Your task to perform on an android device: change notification settings in the gmail app Image 0: 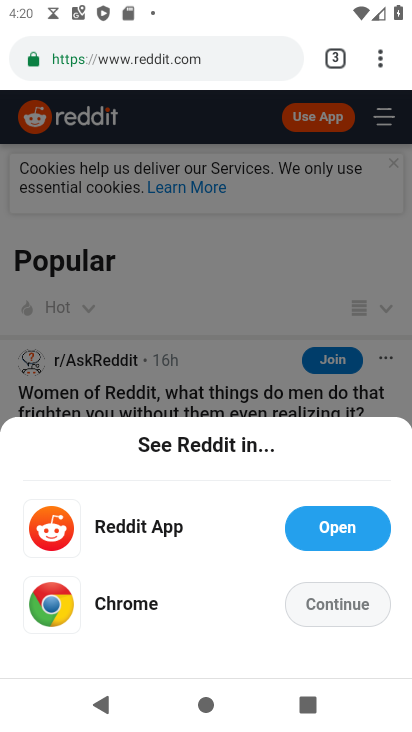
Step 0: press home button
Your task to perform on an android device: change notification settings in the gmail app Image 1: 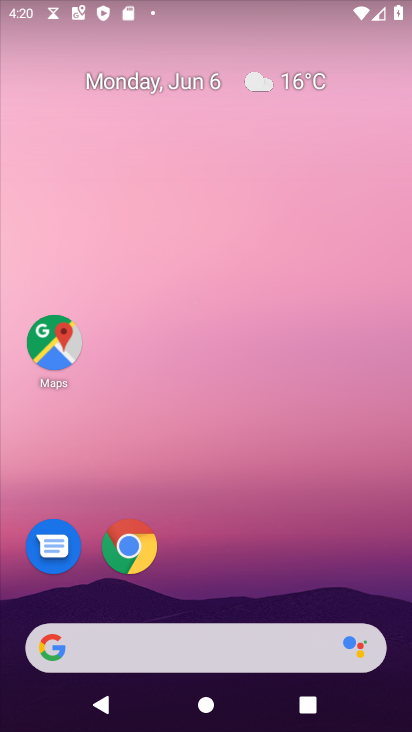
Step 1: drag from (300, 536) to (351, 106)
Your task to perform on an android device: change notification settings in the gmail app Image 2: 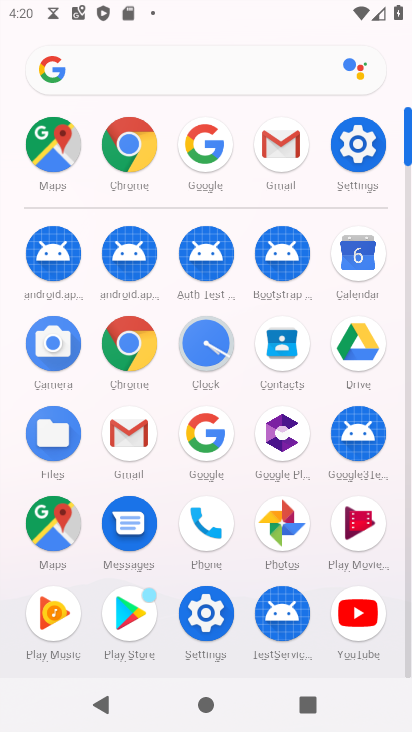
Step 2: click (298, 137)
Your task to perform on an android device: change notification settings in the gmail app Image 3: 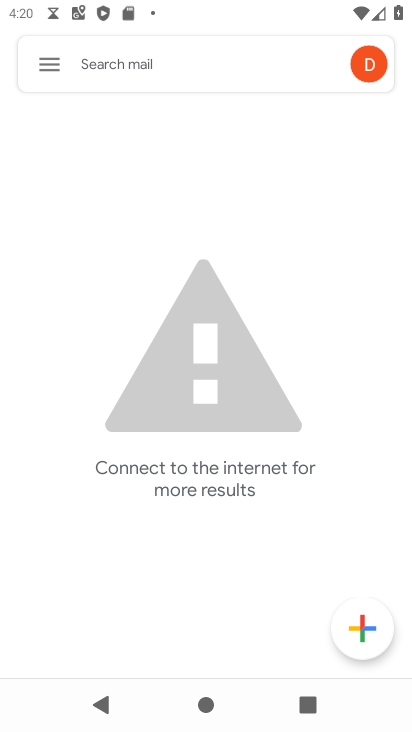
Step 3: click (53, 61)
Your task to perform on an android device: change notification settings in the gmail app Image 4: 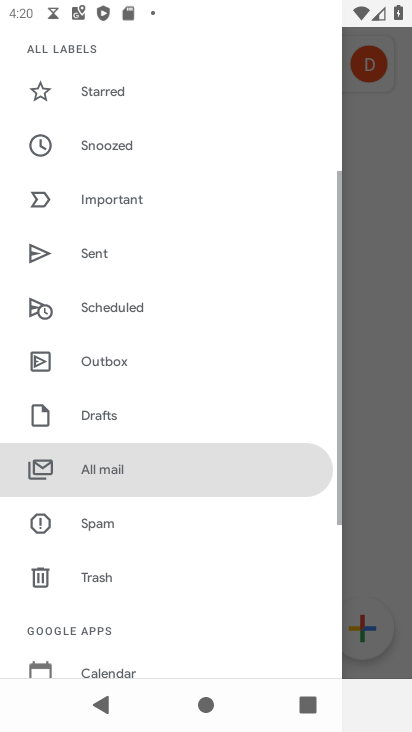
Step 4: drag from (154, 182) to (205, 701)
Your task to perform on an android device: change notification settings in the gmail app Image 5: 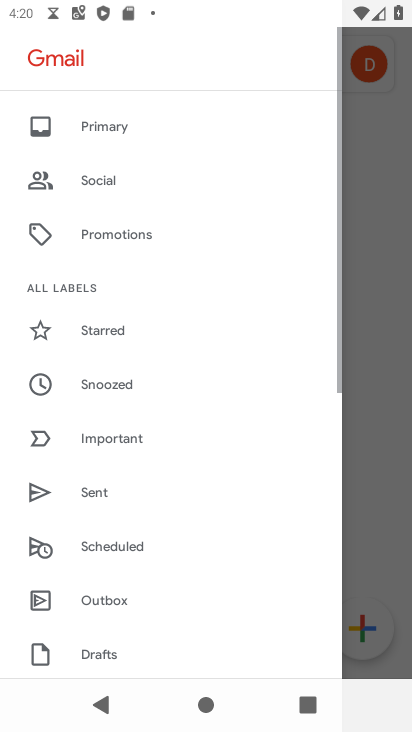
Step 5: drag from (209, 635) to (294, 129)
Your task to perform on an android device: change notification settings in the gmail app Image 6: 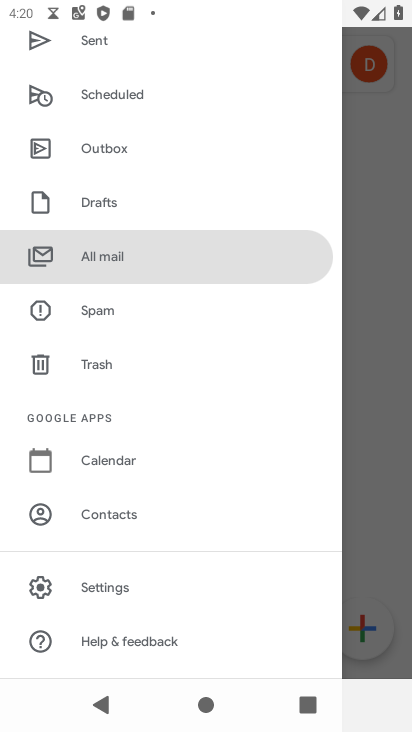
Step 6: click (138, 593)
Your task to perform on an android device: change notification settings in the gmail app Image 7: 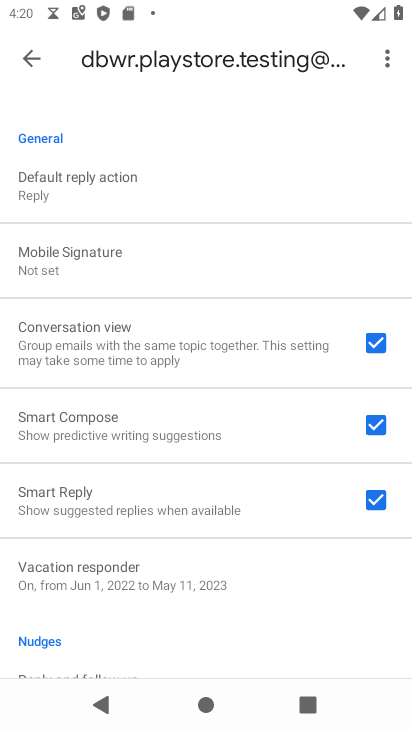
Step 7: drag from (188, 597) to (247, 126)
Your task to perform on an android device: change notification settings in the gmail app Image 8: 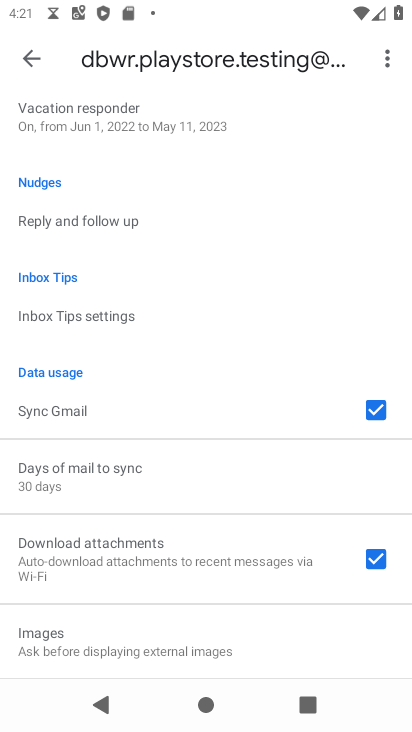
Step 8: drag from (195, 210) to (238, 647)
Your task to perform on an android device: change notification settings in the gmail app Image 9: 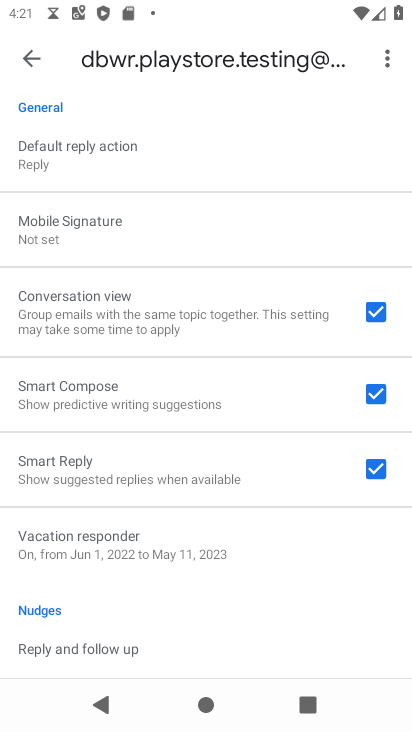
Step 9: drag from (183, 235) to (233, 617)
Your task to perform on an android device: change notification settings in the gmail app Image 10: 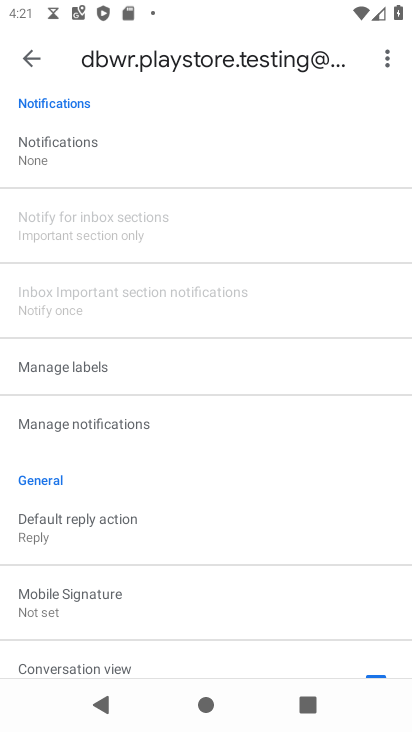
Step 10: drag from (227, 133) to (265, 587)
Your task to perform on an android device: change notification settings in the gmail app Image 11: 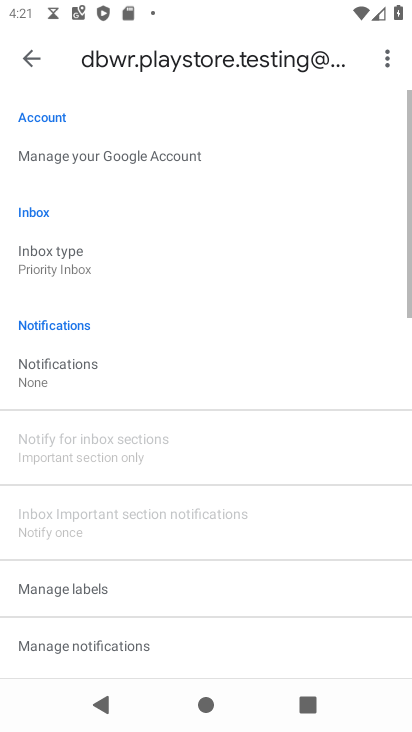
Step 11: click (63, 374)
Your task to perform on an android device: change notification settings in the gmail app Image 12: 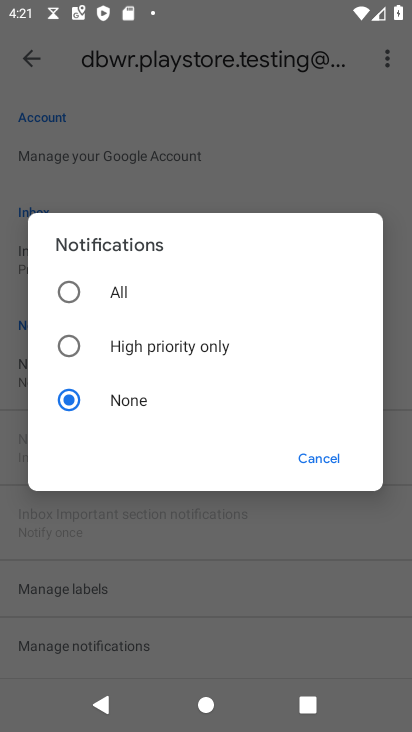
Step 12: click (77, 292)
Your task to perform on an android device: change notification settings in the gmail app Image 13: 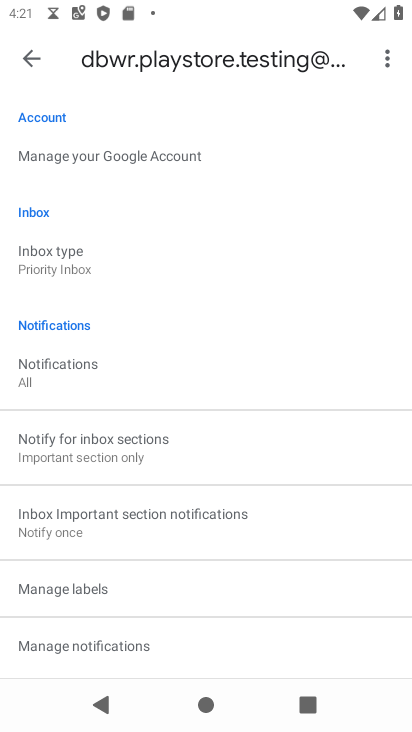
Step 13: task complete